Your task to perform on an android device: Open Google Image 0: 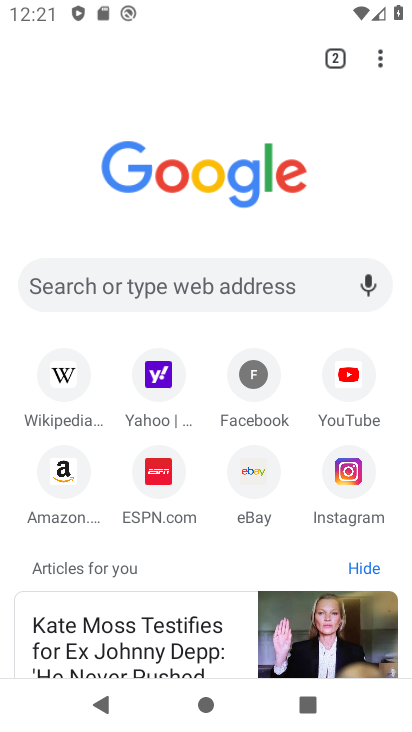
Step 0: press home button
Your task to perform on an android device: Open Google Image 1: 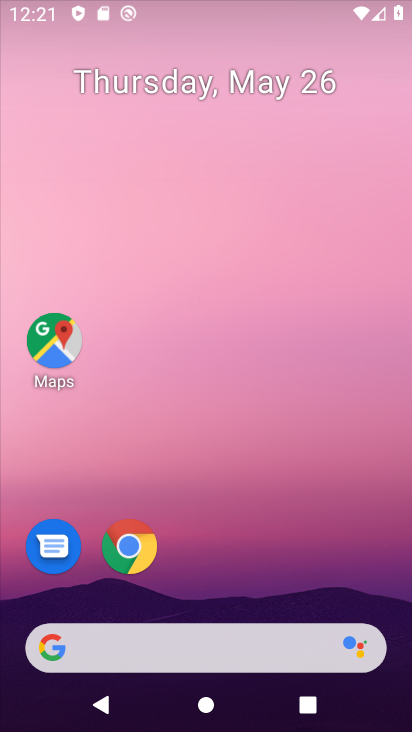
Step 1: drag from (391, 633) to (211, 58)
Your task to perform on an android device: Open Google Image 2: 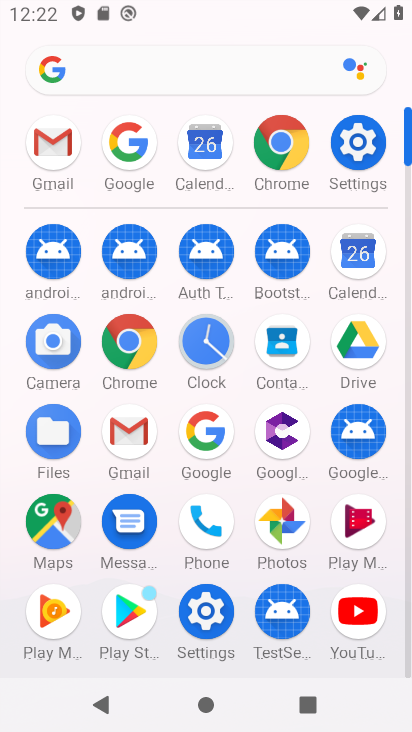
Step 2: click (209, 439)
Your task to perform on an android device: Open Google Image 3: 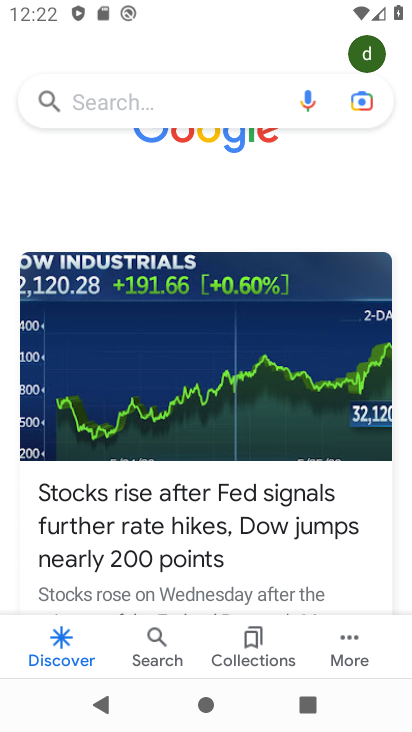
Step 3: task complete